Your task to perform on an android device: clear history in the chrome app Image 0: 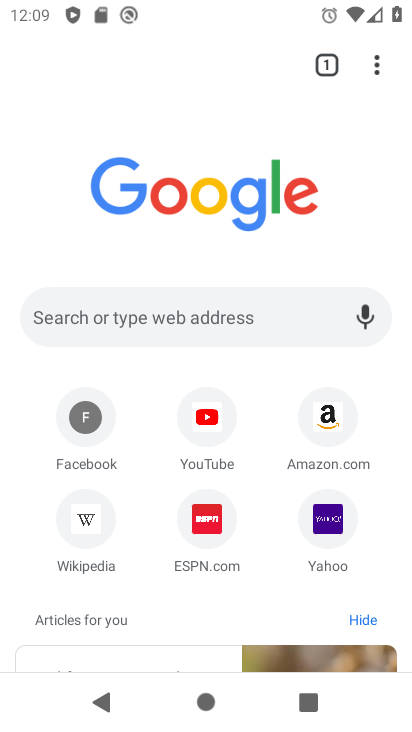
Step 0: click (378, 65)
Your task to perform on an android device: clear history in the chrome app Image 1: 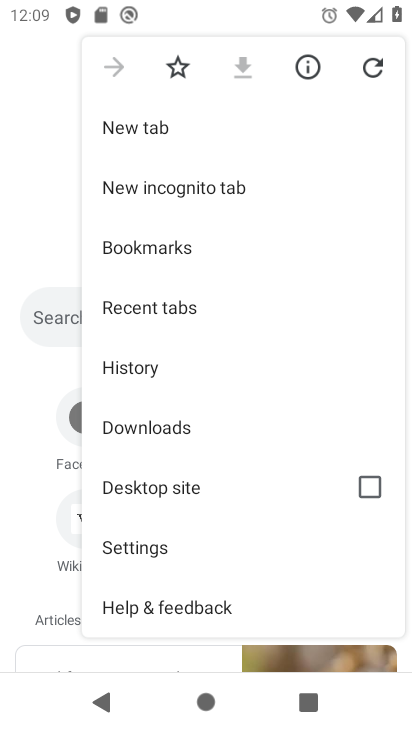
Step 1: click (148, 364)
Your task to perform on an android device: clear history in the chrome app Image 2: 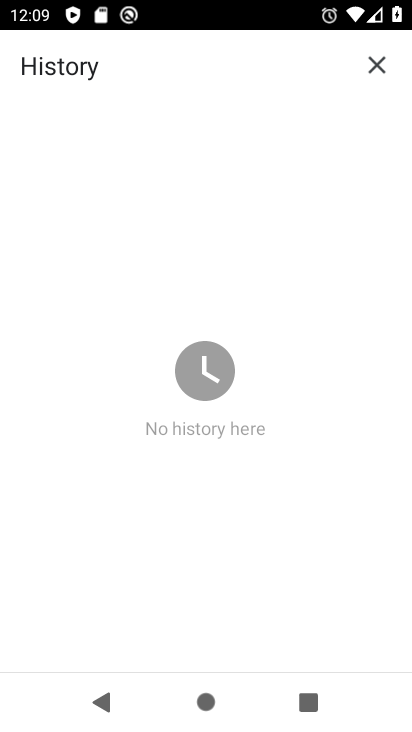
Step 2: task complete